Your task to perform on an android device: Search for Mexican restaurants on Maps Image 0: 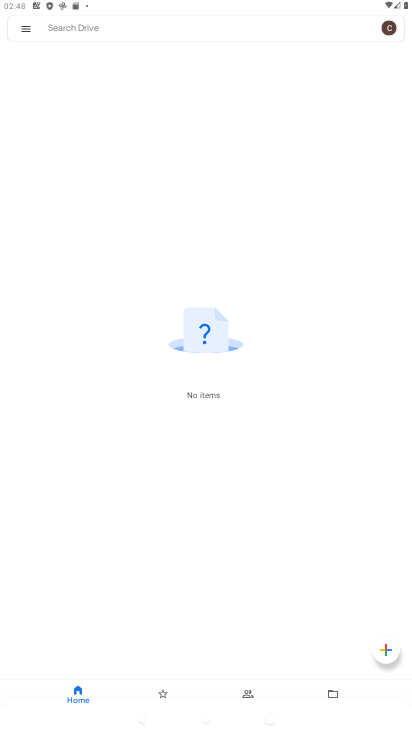
Step 0: press home button
Your task to perform on an android device: Search for Mexican restaurants on Maps Image 1: 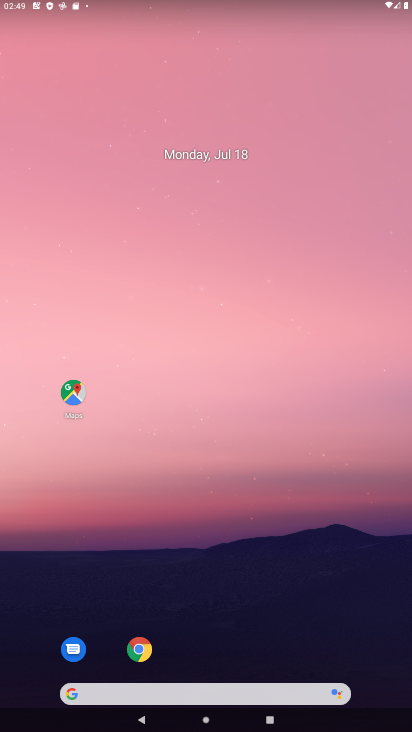
Step 1: click (71, 395)
Your task to perform on an android device: Search for Mexican restaurants on Maps Image 2: 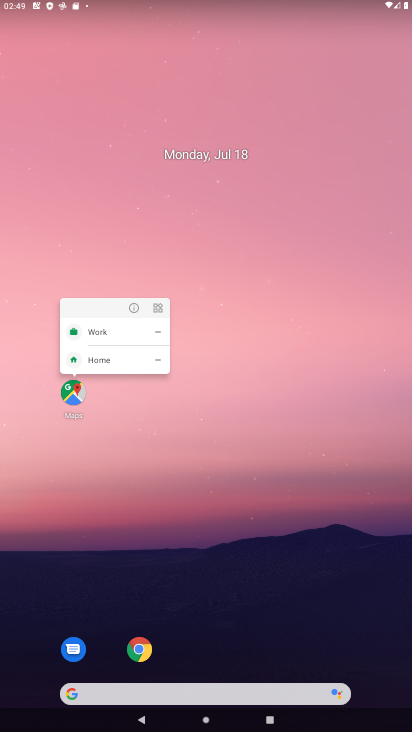
Step 2: click (72, 393)
Your task to perform on an android device: Search for Mexican restaurants on Maps Image 3: 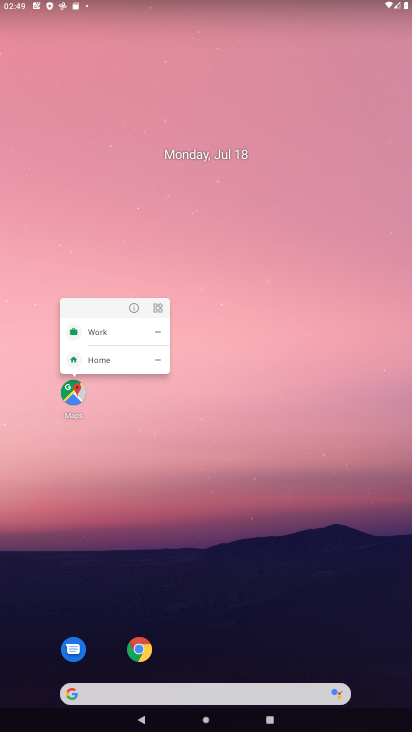
Step 3: click (72, 393)
Your task to perform on an android device: Search for Mexican restaurants on Maps Image 4: 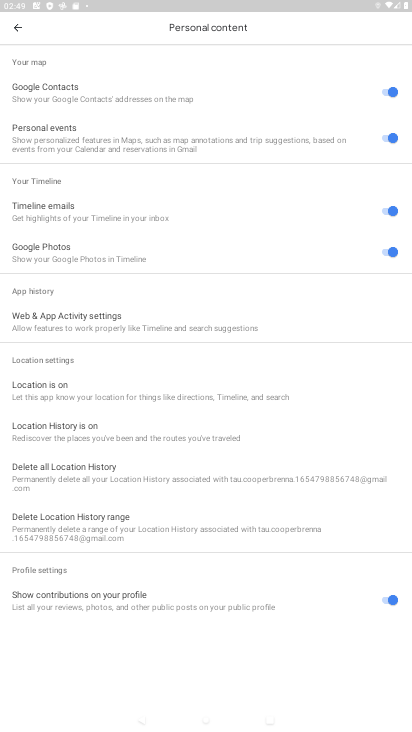
Step 4: click (14, 25)
Your task to perform on an android device: Search for Mexican restaurants on Maps Image 5: 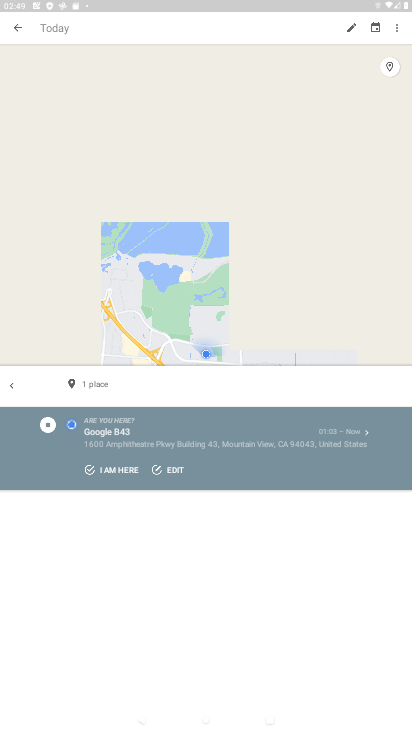
Step 5: click (11, 25)
Your task to perform on an android device: Search for Mexican restaurants on Maps Image 6: 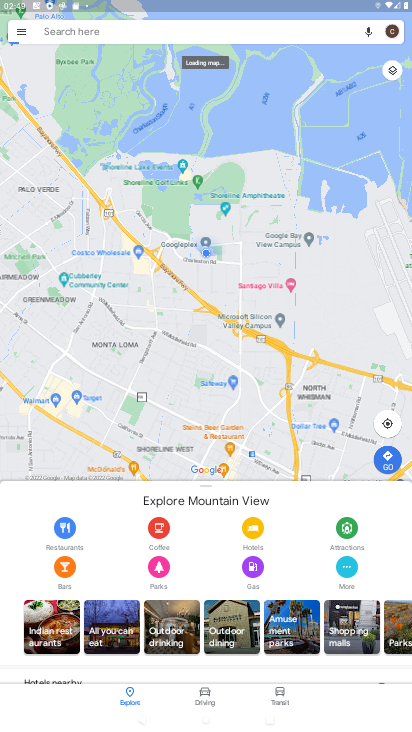
Step 6: click (56, 32)
Your task to perform on an android device: Search for Mexican restaurants on Maps Image 7: 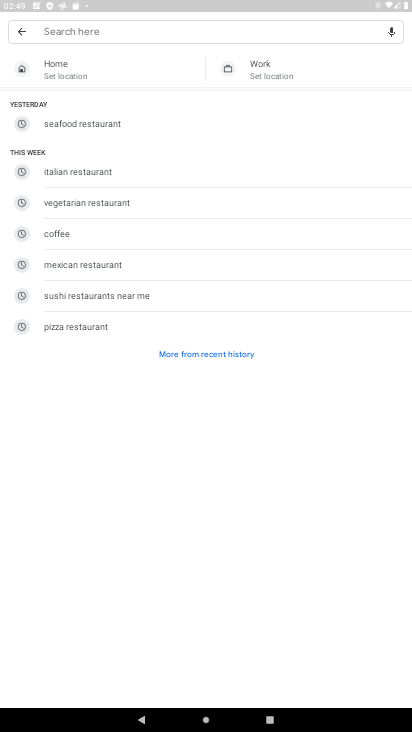
Step 7: click (108, 262)
Your task to perform on an android device: Search for Mexican restaurants on Maps Image 8: 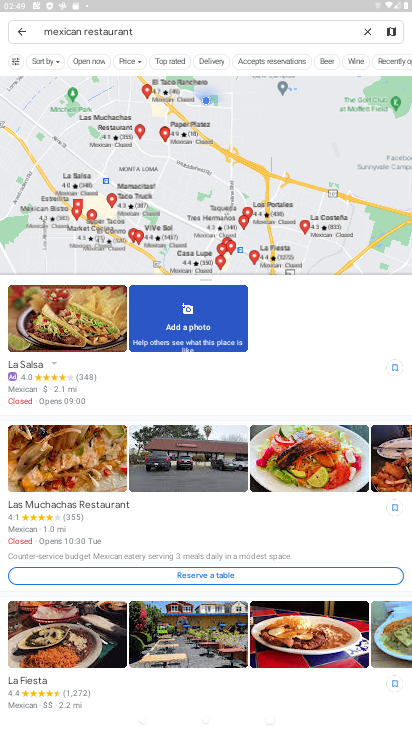
Step 8: task complete